Your task to perform on an android device: set an alarm Image 0: 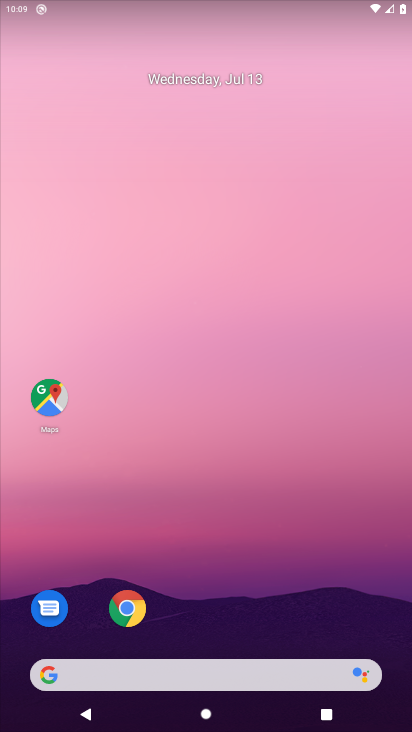
Step 0: drag from (11, 704) to (233, 77)
Your task to perform on an android device: set an alarm Image 1: 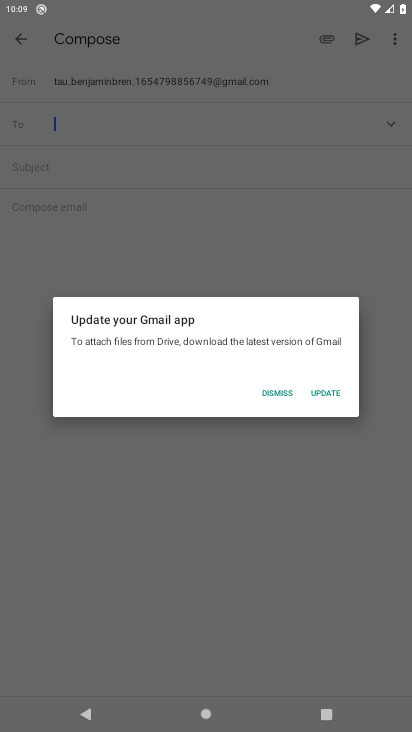
Step 1: press home button
Your task to perform on an android device: set an alarm Image 2: 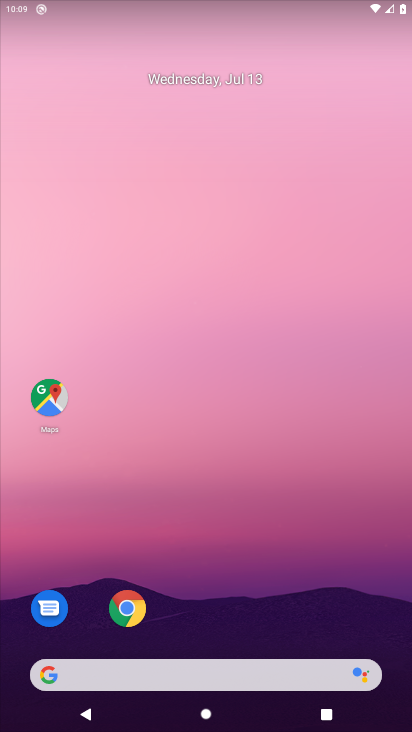
Step 2: drag from (23, 684) to (289, 8)
Your task to perform on an android device: set an alarm Image 3: 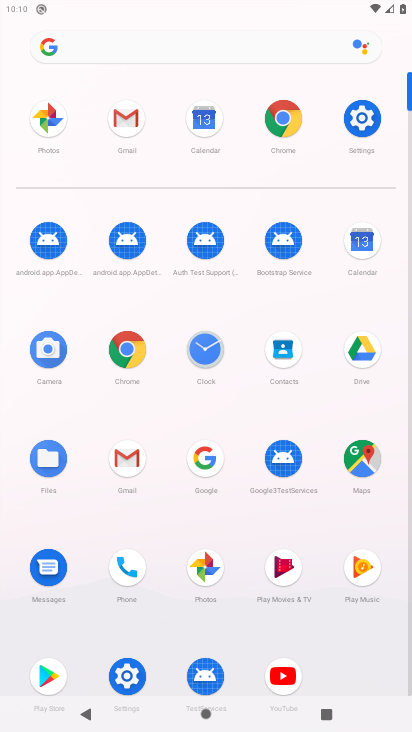
Step 3: click (193, 360)
Your task to perform on an android device: set an alarm Image 4: 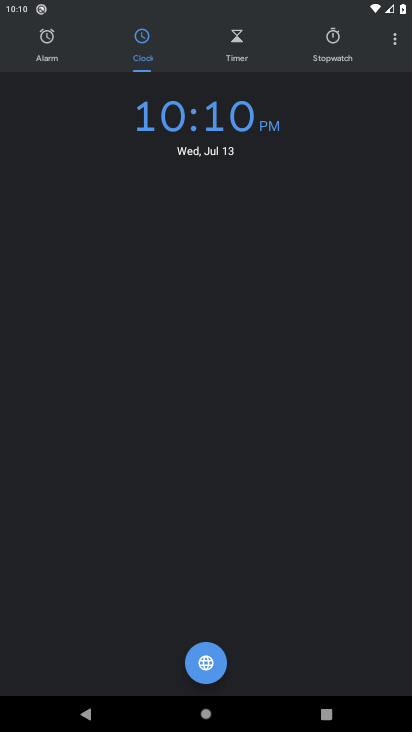
Step 4: click (66, 56)
Your task to perform on an android device: set an alarm Image 5: 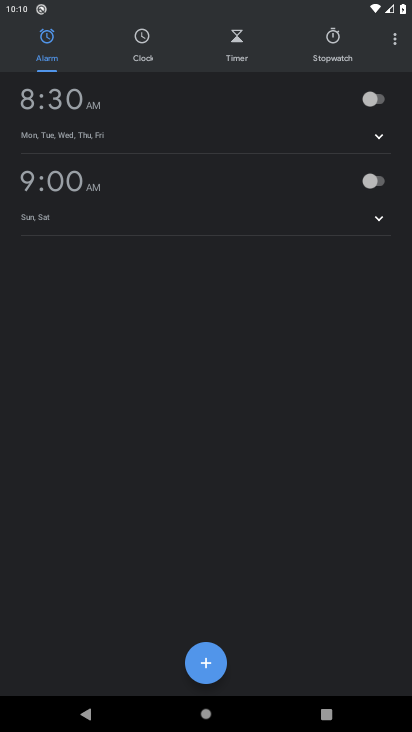
Step 5: click (362, 101)
Your task to perform on an android device: set an alarm Image 6: 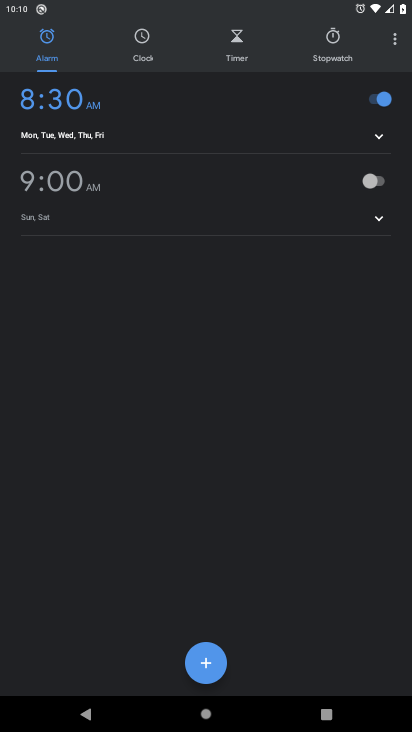
Step 6: task complete